Your task to perform on an android device: change text size in settings app Image 0: 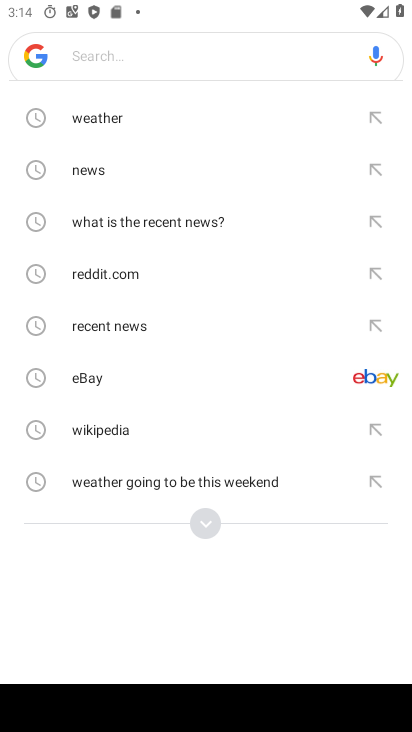
Step 0: press home button
Your task to perform on an android device: change text size in settings app Image 1: 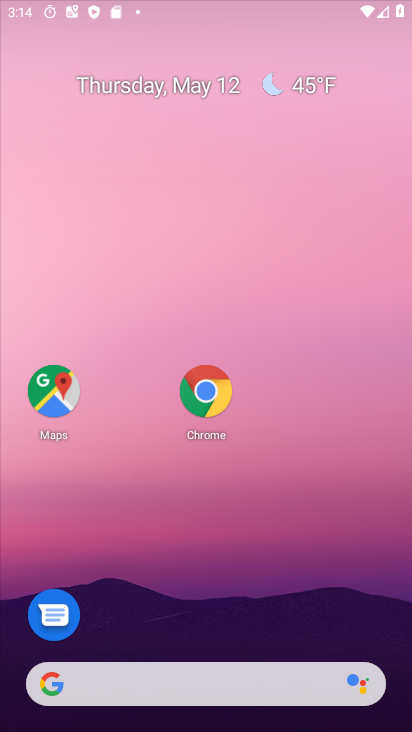
Step 1: drag from (208, 601) to (229, 175)
Your task to perform on an android device: change text size in settings app Image 2: 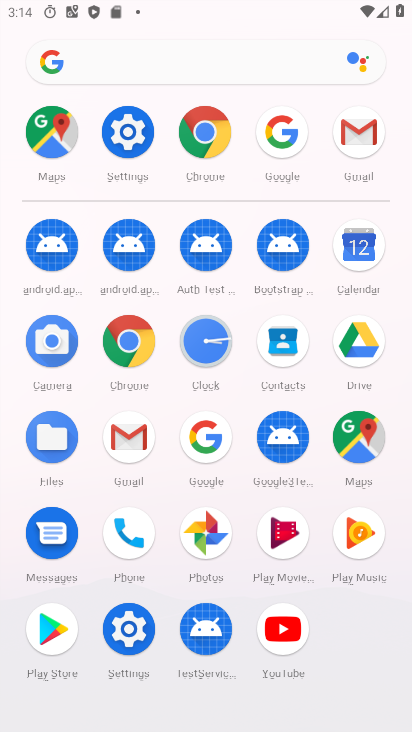
Step 2: click (130, 138)
Your task to perform on an android device: change text size in settings app Image 3: 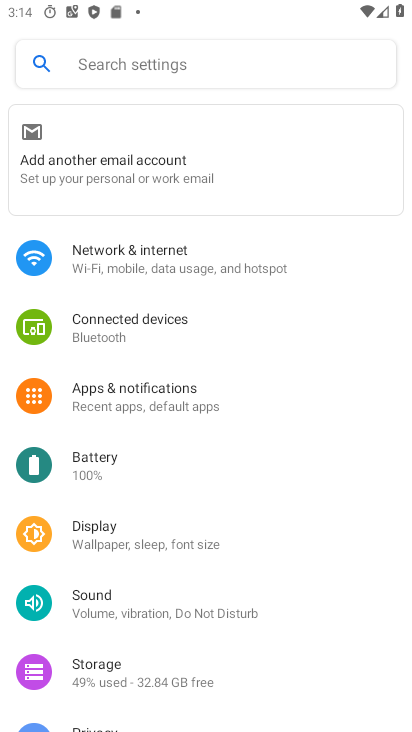
Step 3: drag from (169, 591) to (180, 354)
Your task to perform on an android device: change text size in settings app Image 4: 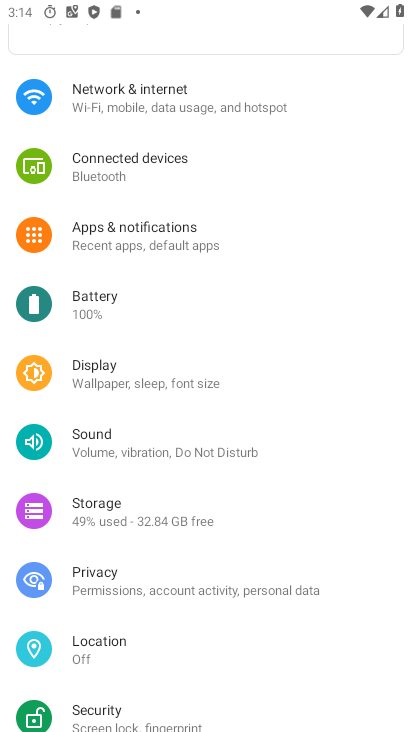
Step 4: click (135, 381)
Your task to perform on an android device: change text size in settings app Image 5: 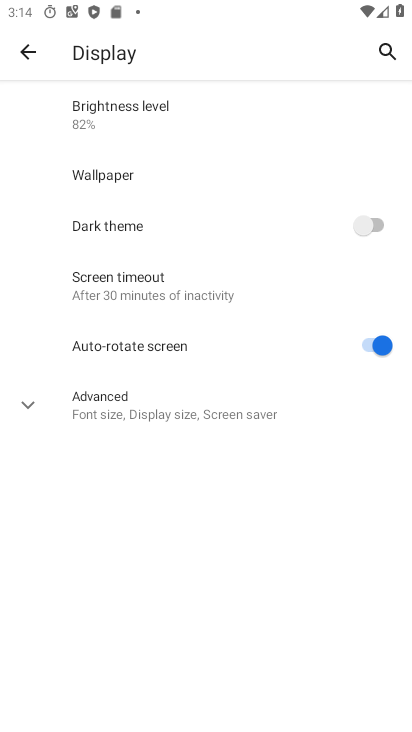
Step 5: click (94, 411)
Your task to perform on an android device: change text size in settings app Image 6: 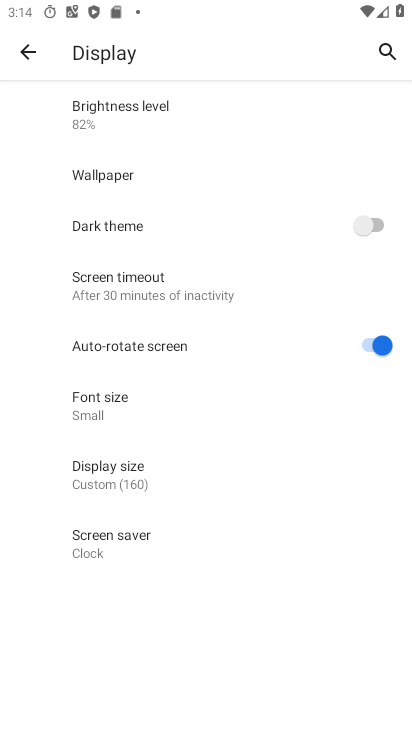
Step 6: click (138, 407)
Your task to perform on an android device: change text size in settings app Image 7: 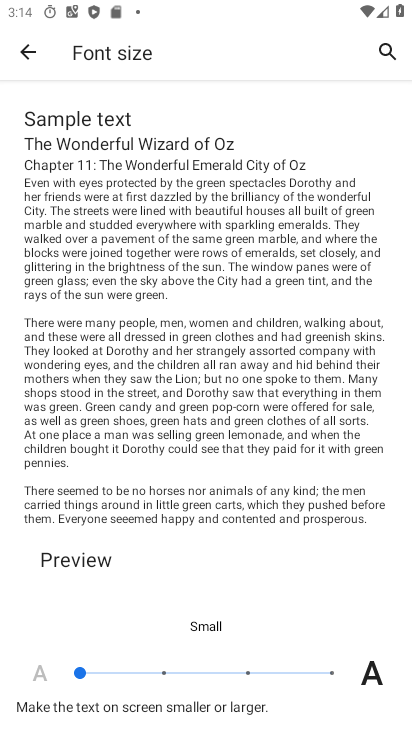
Step 7: task complete